Your task to perform on an android device: Search for "asus rog" on walmart.com, select the first entry, and add it to the cart. Image 0: 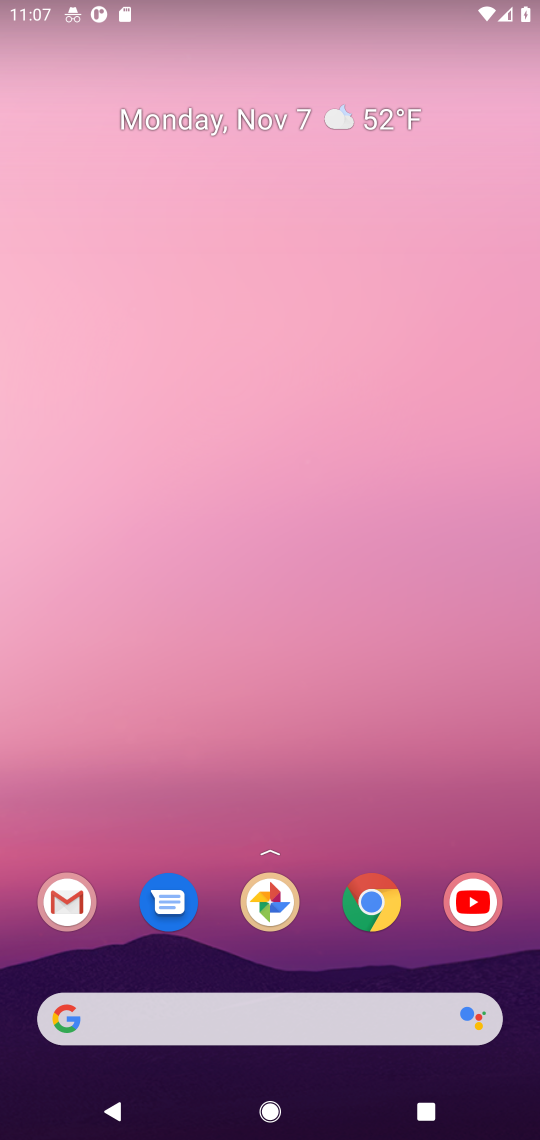
Step 0: click (373, 898)
Your task to perform on an android device: Search for "asus rog" on walmart.com, select the first entry, and add it to the cart. Image 1: 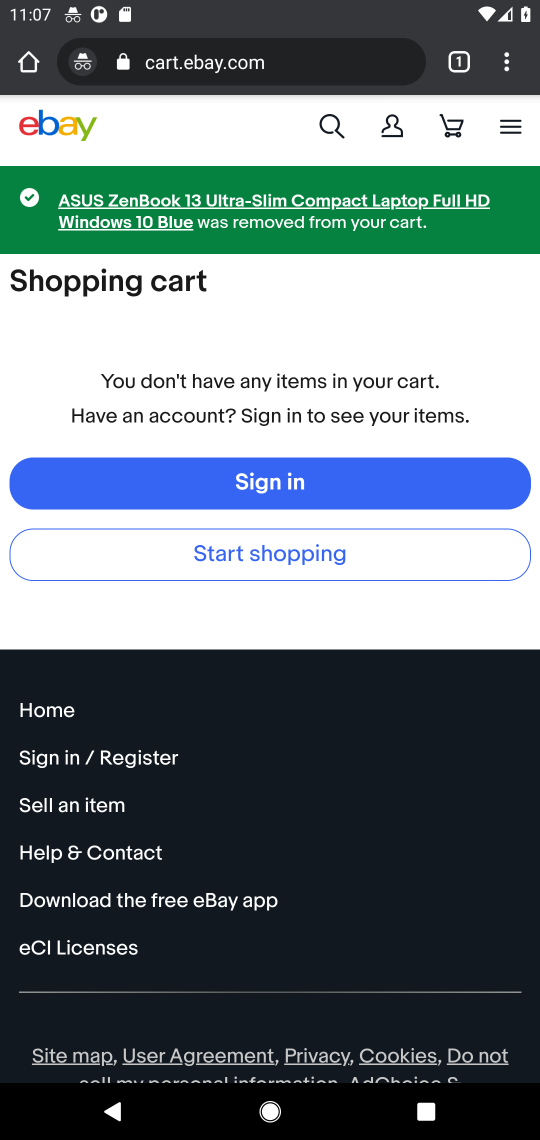
Step 1: click (215, 71)
Your task to perform on an android device: Search for "asus rog" on walmart.com, select the first entry, and add it to the cart. Image 2: 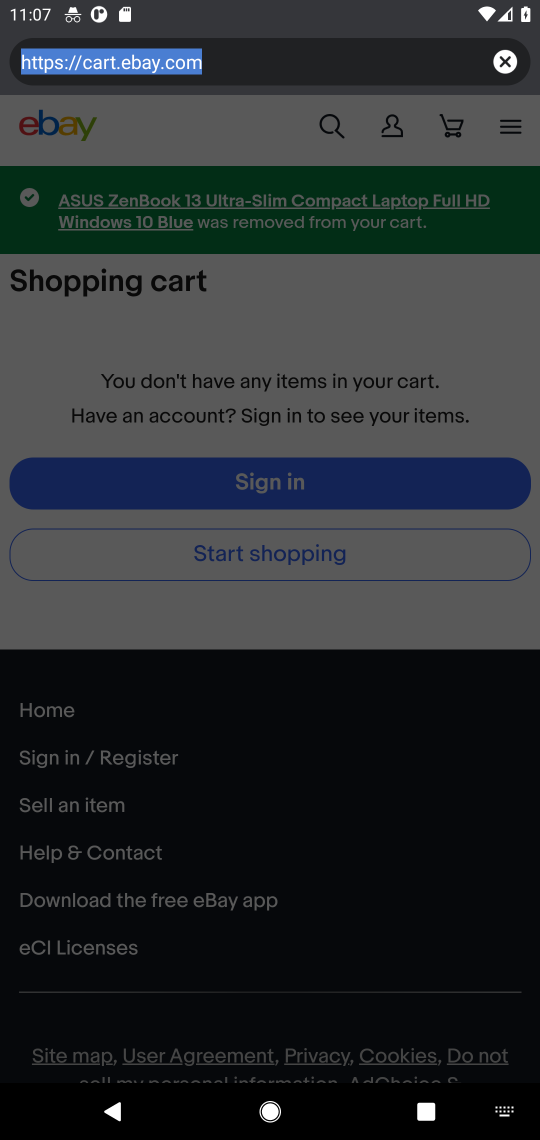
Step 2: type "walmart.com"
Your task to perform on an android device: Search for "asus rog" on walmart.com, select the first entry, and add it to the cart. Image 3: 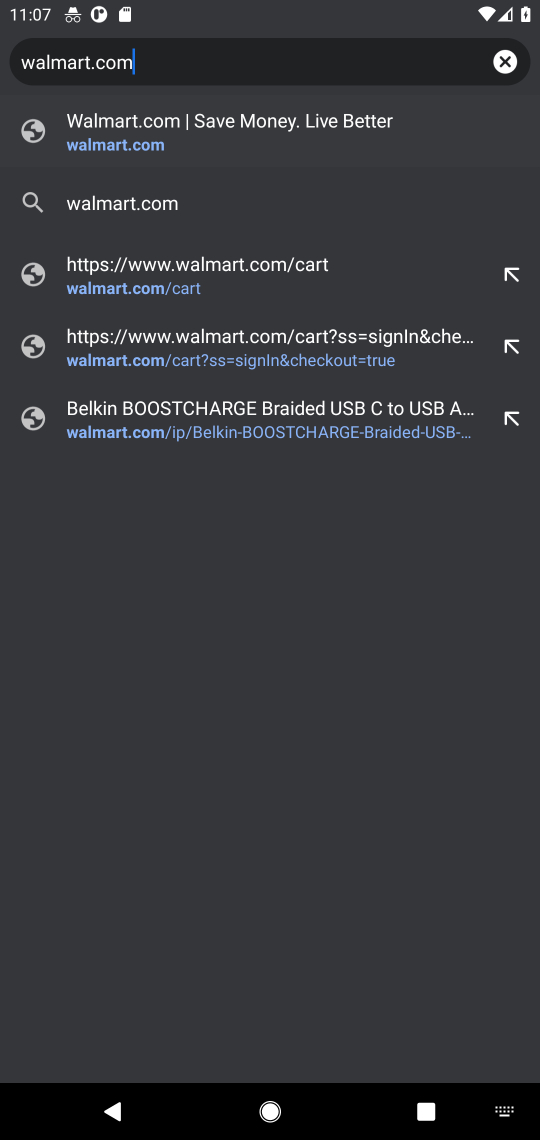
Step 3: click (107, 152)
Your task to perform on an android device: Search for "asus rog" on walmart.com, select the first entry, and add it to the cart. Image 4: 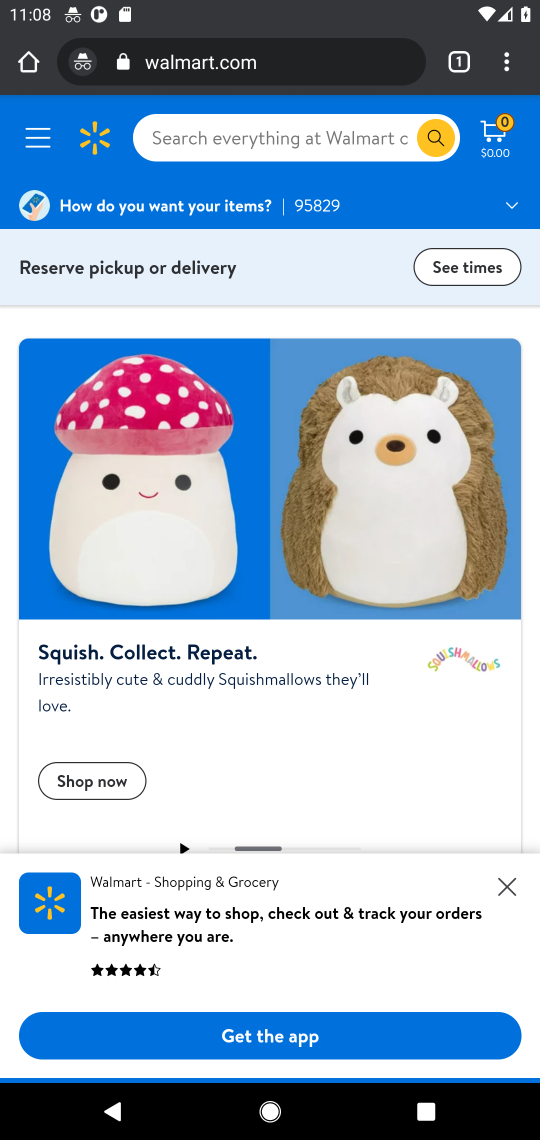
Step 4: click (237, 147)
Your task to perform on an android device: Search for "asus rog" on walmart.com, select the first entry, and add it to the cart. Image 5: 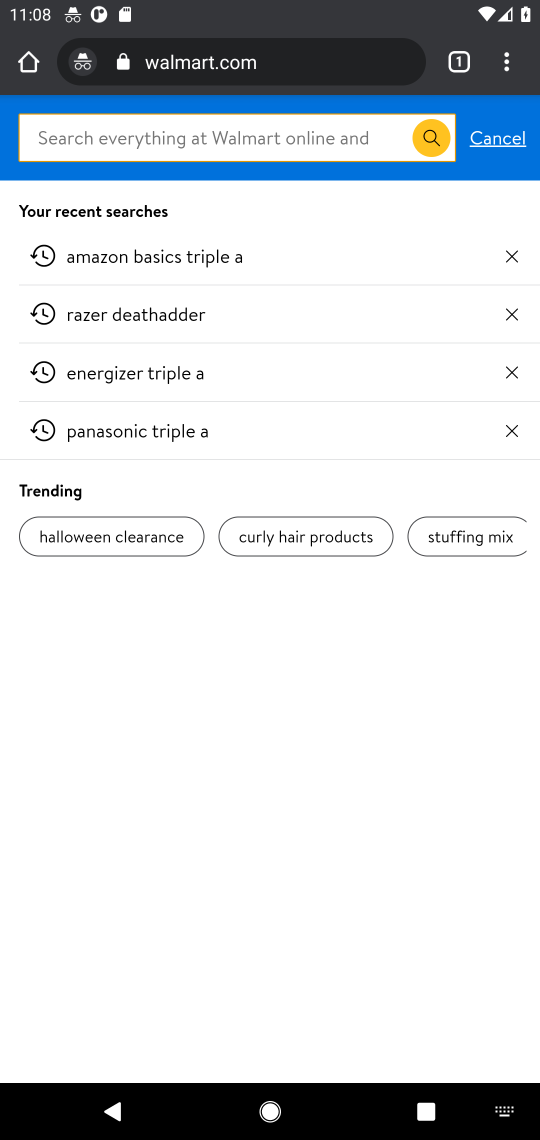
Step 5: type "asus rog"
Your task to perform on an android device: Search for "asus rog" on walmart.com, select the first entry, and add it to the cart. Image 6: 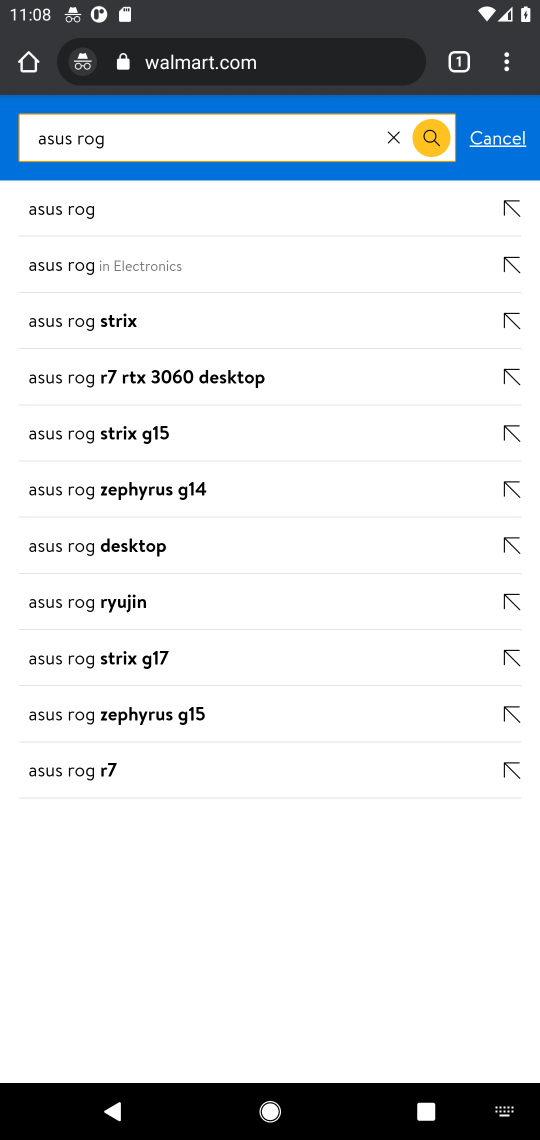
Step 6: click (66, 206)
Your task to perform on an android device: Search for "asus rog" on walmart.com, select the first entry, and add it to the cart. Image 7: 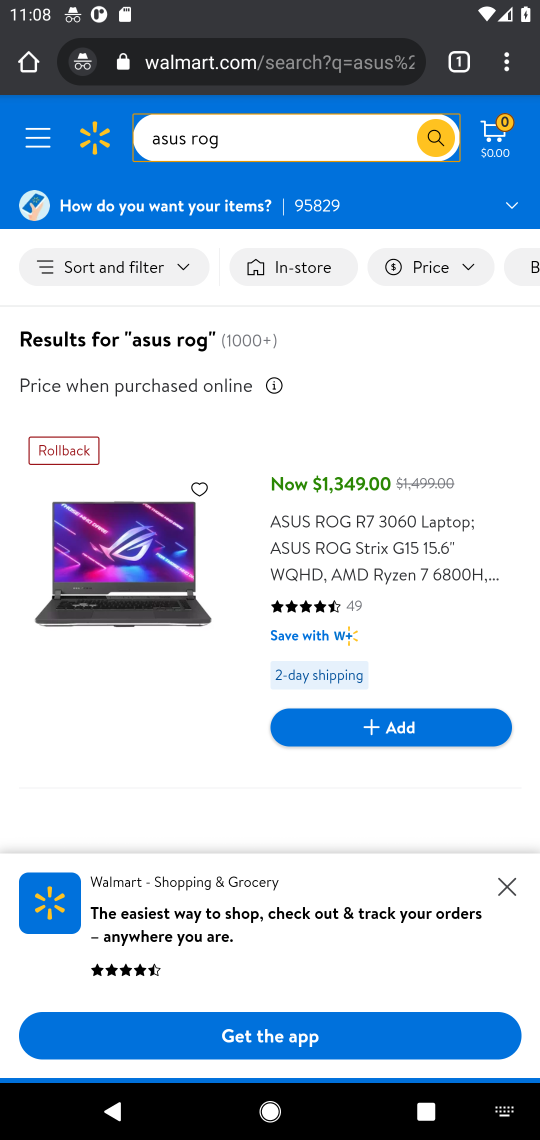
Step 7: click (424, 742)
Your task to perform on an android device: Search for "asus rog" on walmart.com, select the first entry, and add it to the cart. Image 8: 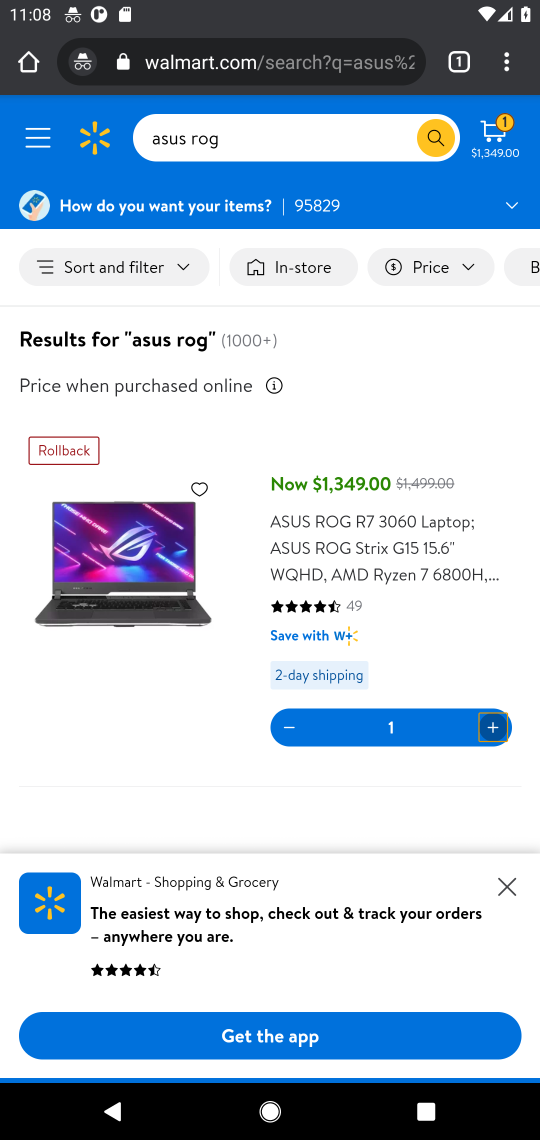
Step 8: task complete